Your task to perform on an android device: open chrome and create a bookmark for the current page Image 0: 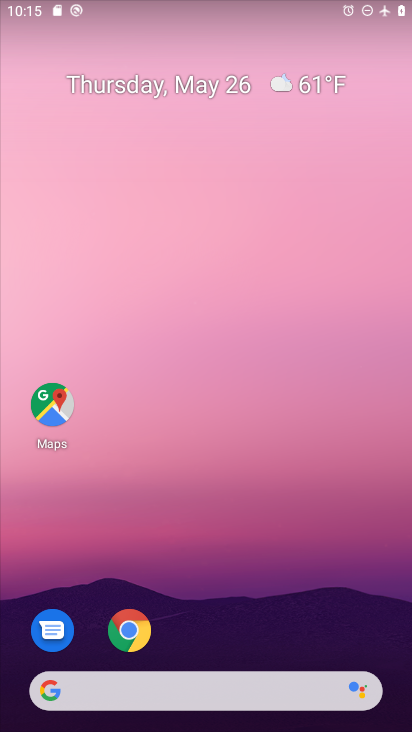
Step 0: click (130, 632)
Your task to perform on an android device: open chrome and create a bookmark for the current page Image 1: 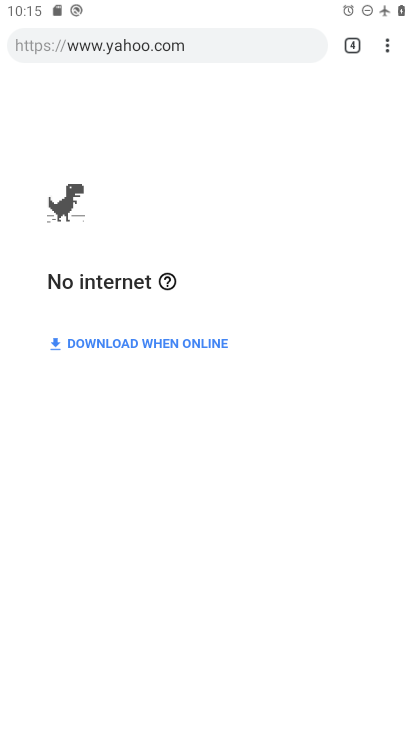
Step 1: click (384, 39)
Your task to perform on an android device: open chrome and create a bookmark for the current page Image 2: 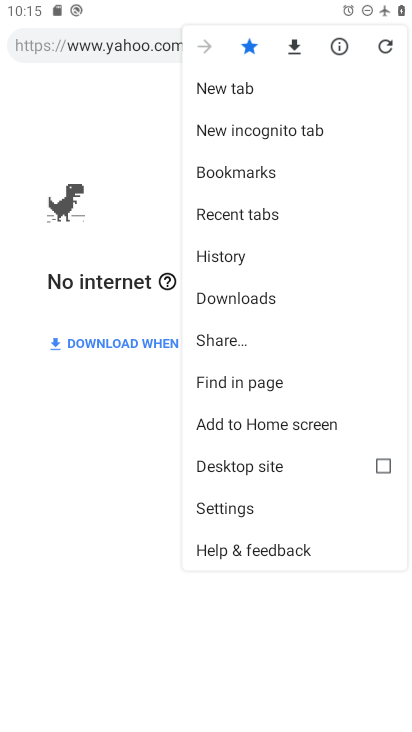
Step 2: click (243, 39)
Your task to perform on an android device: open chrome and create a bookmark for the current page Image 3: 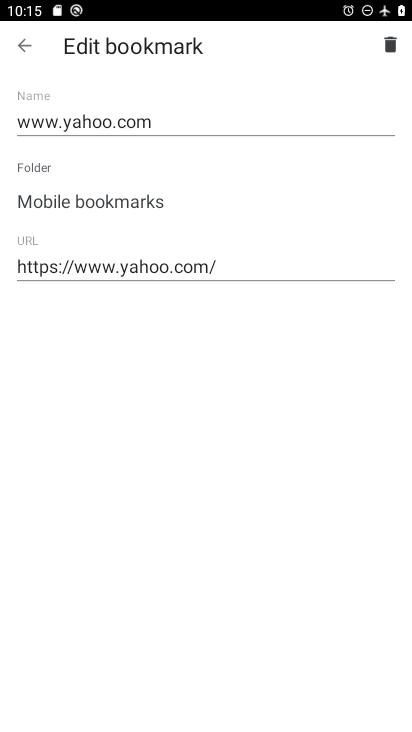
Step 3: task complete